Your task to perform on an android device: toggle javascript in the chrome app Image 0: 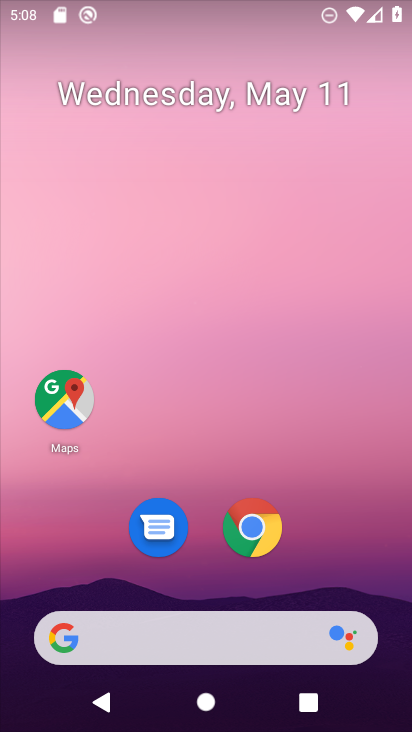
Step 0: click (263, 530)
Your task to perform on an android device: toggle javascript in the chrome app Image 1: 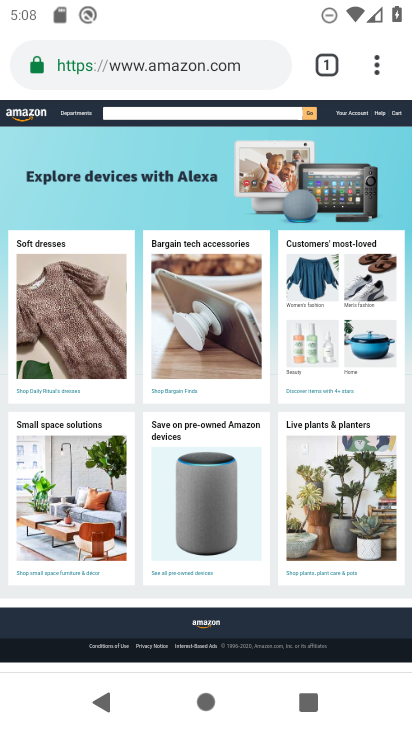
Step 1: drag from (359, 57) to (135, 578)
Your task to perform on an android device: toggle javascript in the chrome app Image 2: 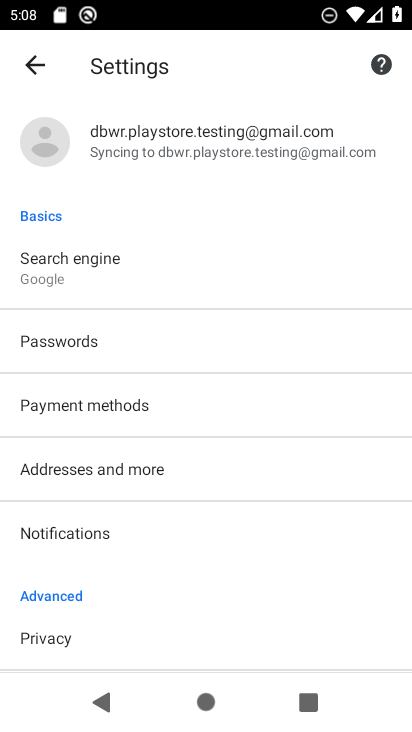
Step 2: drag from (285, 551) to (312, 152)
Your task to perform on an android device: toggle javascript in the chrome app Image 3: 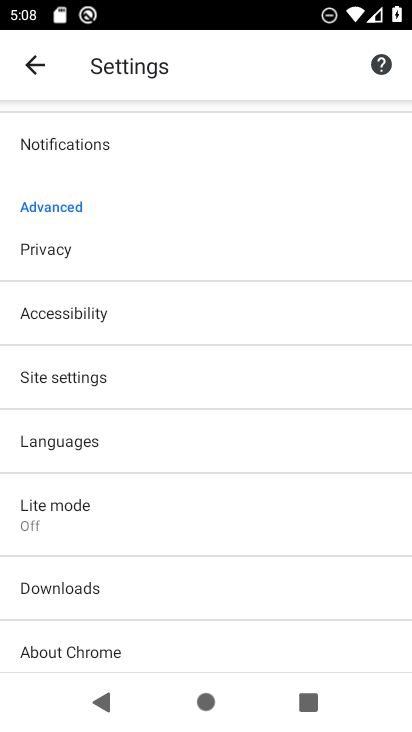
Step 3: click (114, 383)
Your task to perform on an android device: toggle javascript in the chrome app Image 4: 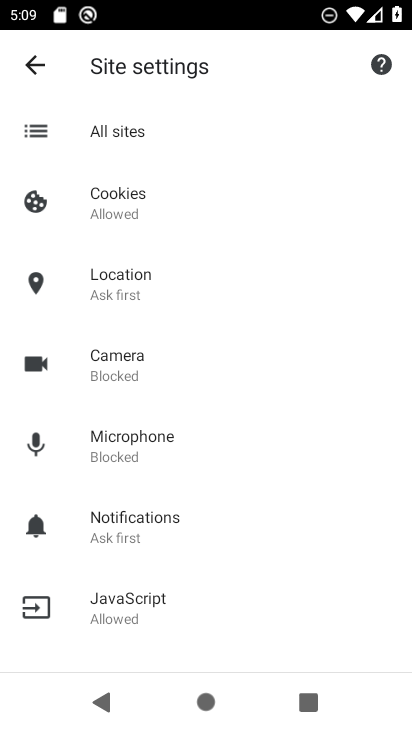
Step 4: drag from (177, 575) to (179, 348)
Your task to perform on an android device: toggle javascript in the chrome app Image 5: 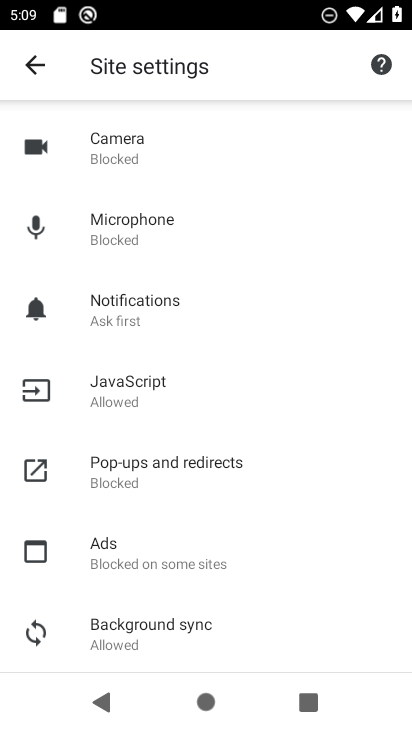
Step 5: click (140, 386)
Your task to perform on an android device: toggle javascript in the chrome app Image 6: 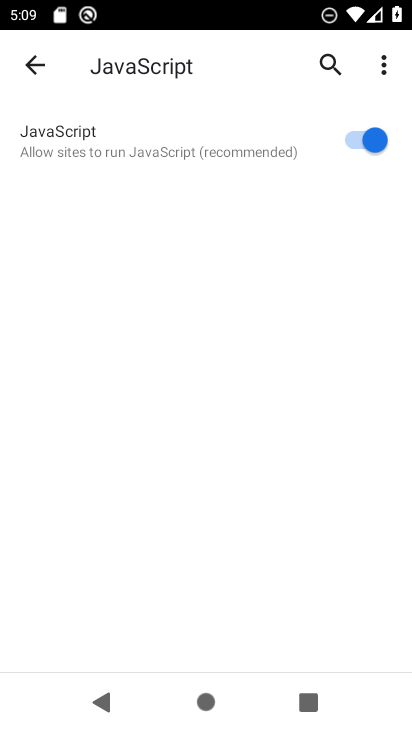
Step 6: click (317, 125)
Your task to perform on an android device: toggle javascript in the chrome app Image 7: 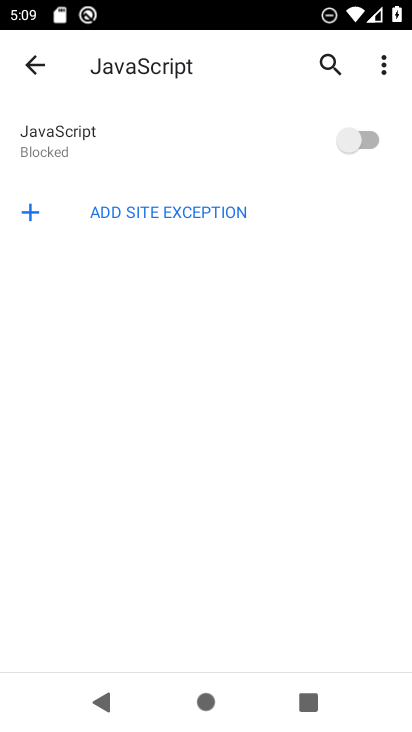
Step 7: task complete